Your task to perform on an android device: Search for the best rated tool bag on Lowe's. Image 0: 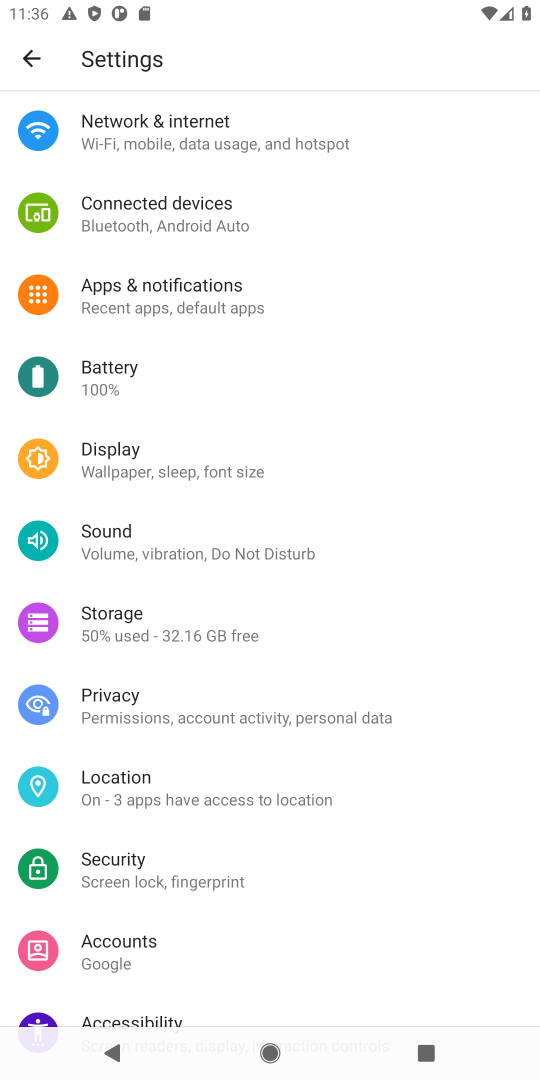
Step 0: press home button
Your task to perform on an android device: Search for the best rated tool bag on Lowe's. Image 1: 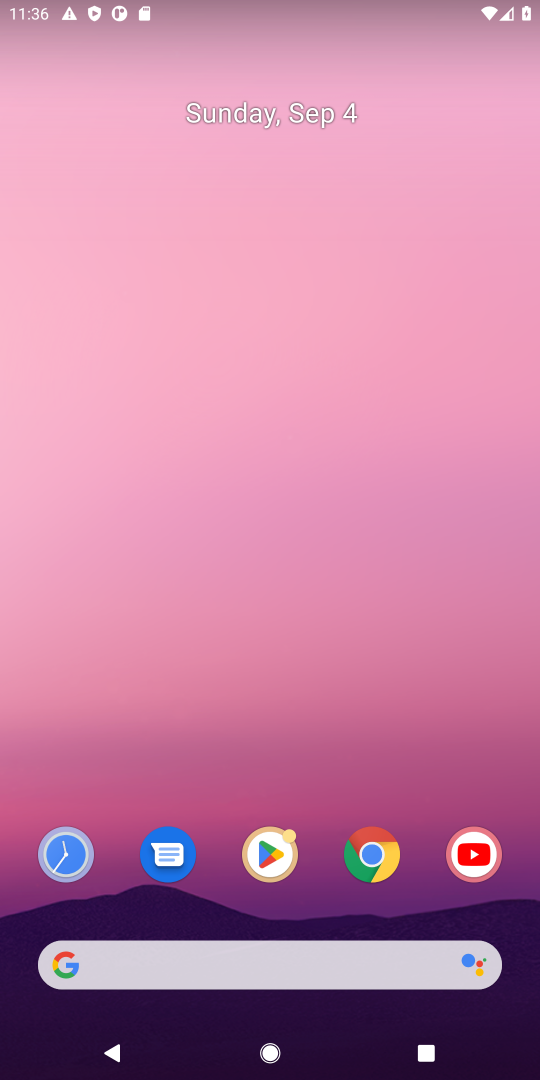
Step 1: click (433, 959)
Your task to perform on an android device: Search for the best rated tool bag on Lowe's. Image 2: 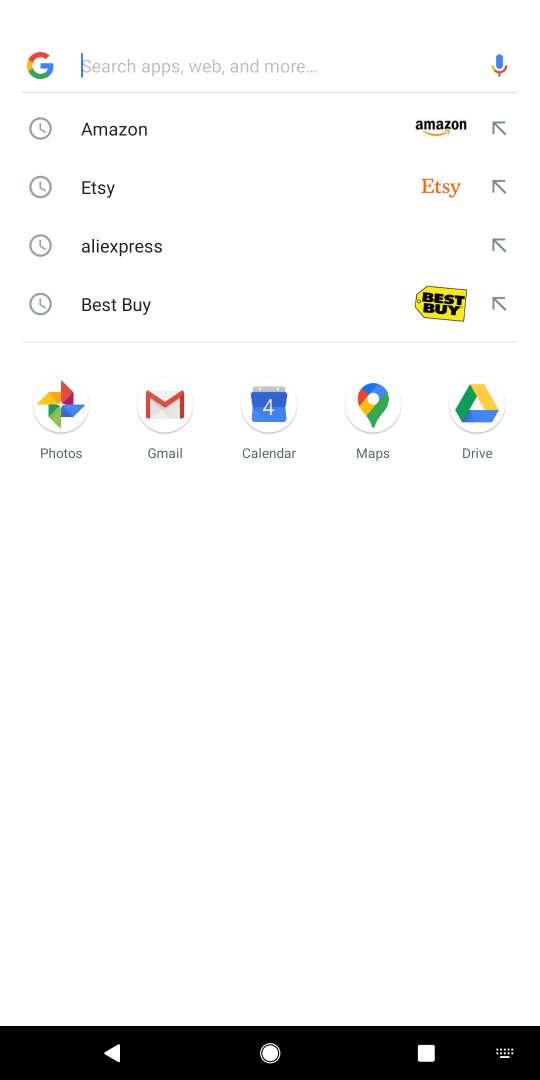
Step 2: press enter
Your task to perform on an android device: Search for the best rated tool bag on Lowe's. Image 3: 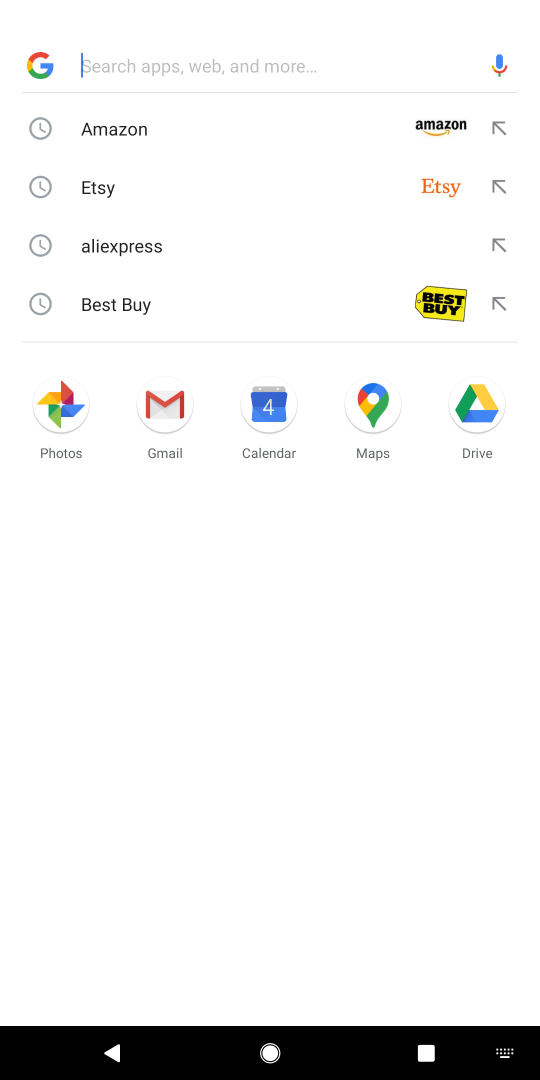
Step 3: type "lowes"
Your task to perform on an android device: Search for the best rated tool bag on Lowe's. Image 4: 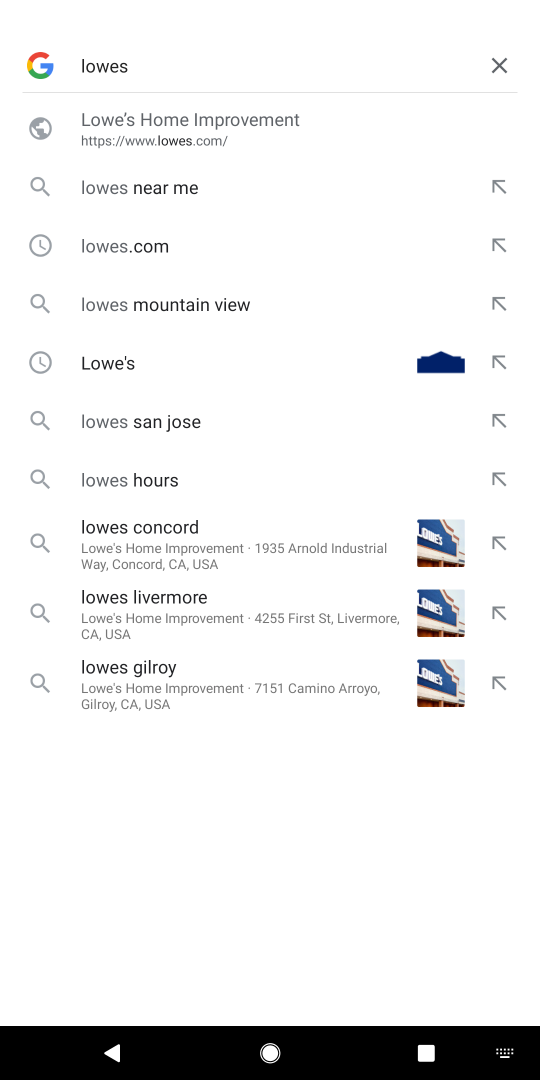
Step 4: click (204, 135)
Your task to perform on an android device: Search for the best rated tool bag on Lowe's. Image 5: 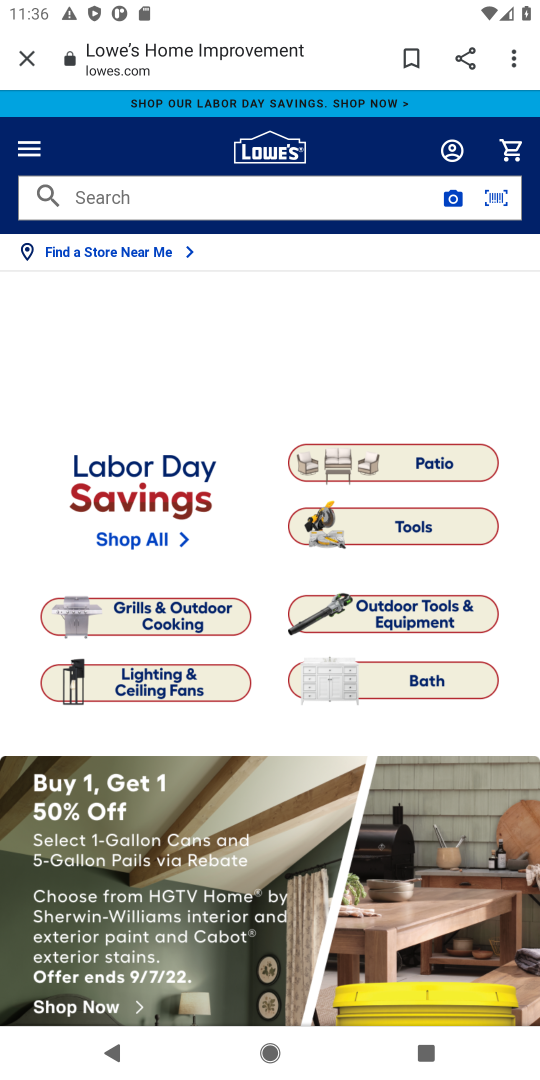
Step 5: click (200, 200)
Your task to perform on an android device: Search for the best rated tool bag on Lowe's. Image 6: 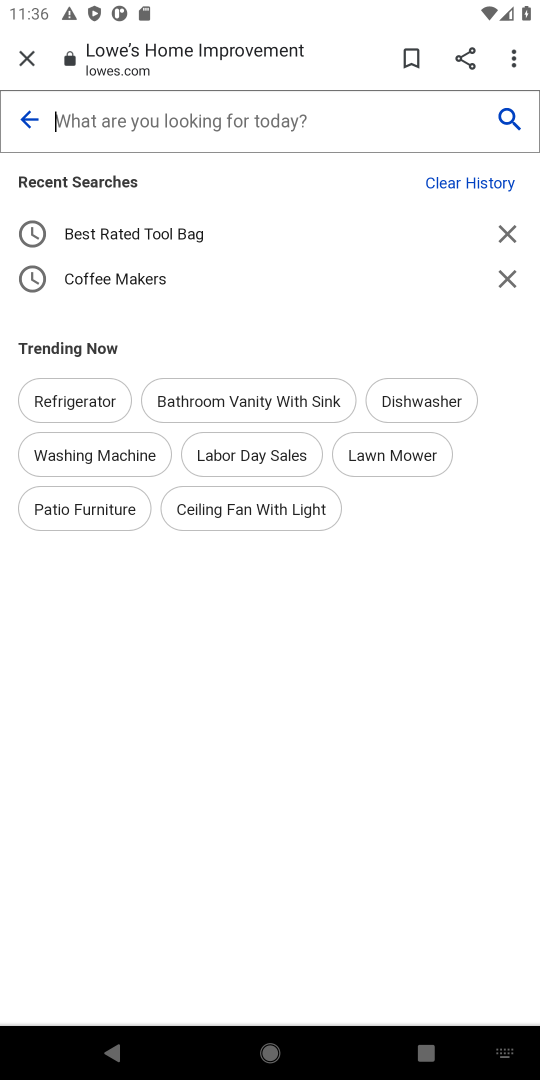
Step 6: press enter
Your task to perform on an android device: Search for the best rated tool bag on Lowe's. Image 7: 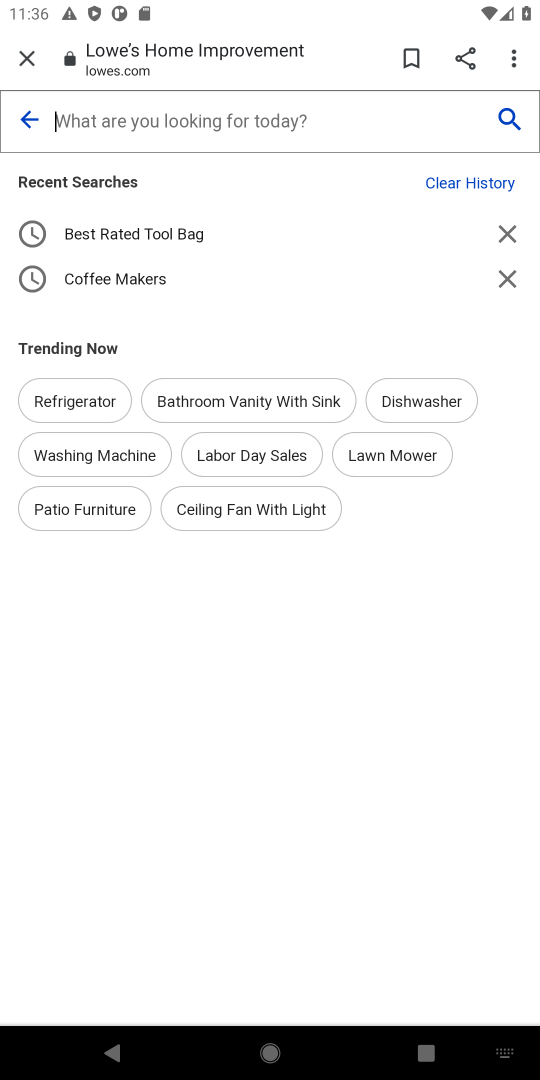
Step 7: type " best rated tool bag"
Your task to perform on an android device: Search for the best rated tool bag on Lowe's. Image 8: 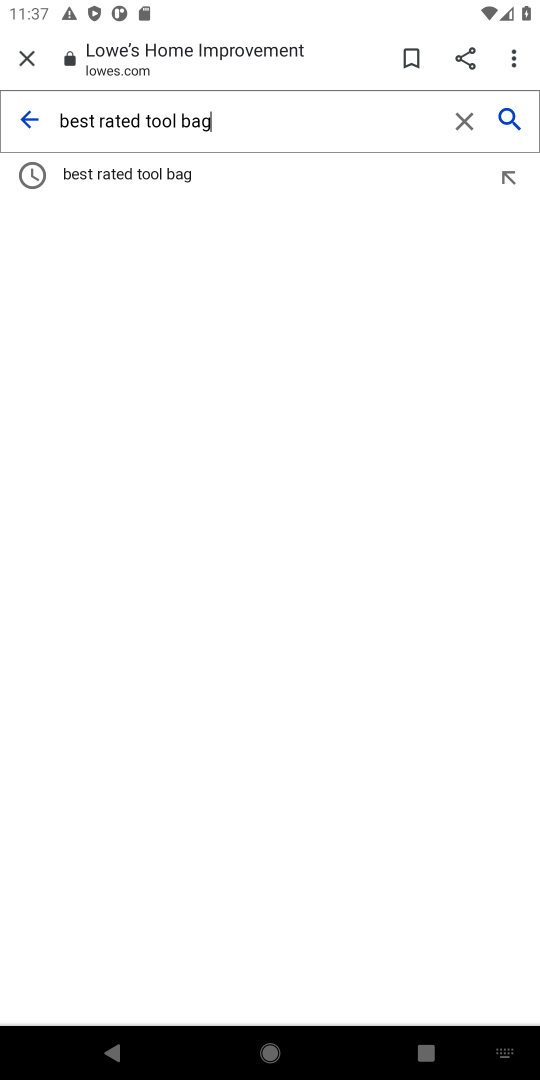
Step 8: click (212, 107)
Your task to perform on an android device: Search for the best rated tool bag on Lowe's. Image 9: 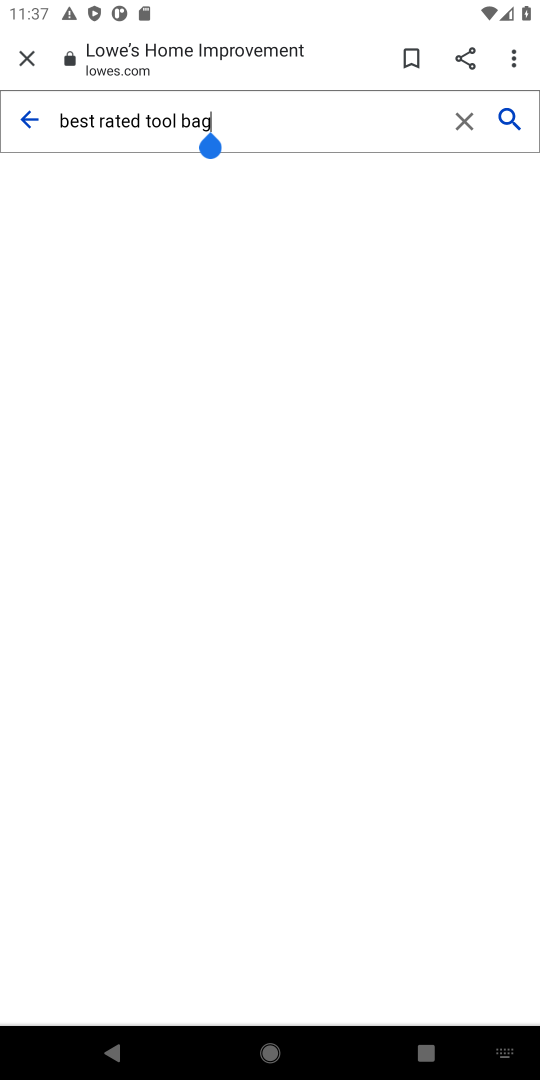
Step 9: click (501, 111)
Your task to perform on an android device: Search for the best rated tool bag on Lowe's. Image 10: 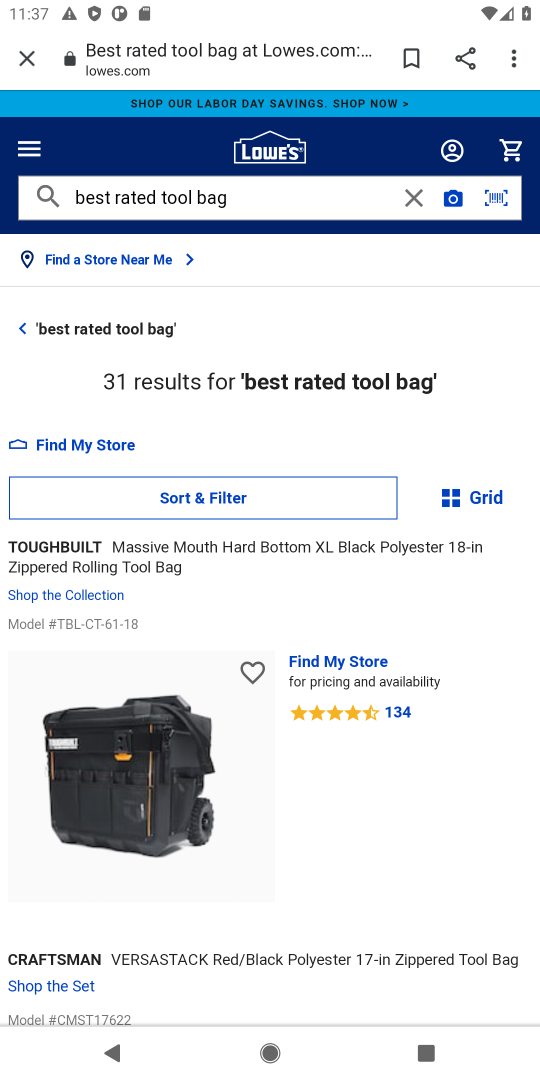
Step 10: task complete